Your task to perform on an android device: turn on priority inbox in the gmail app Image 0: 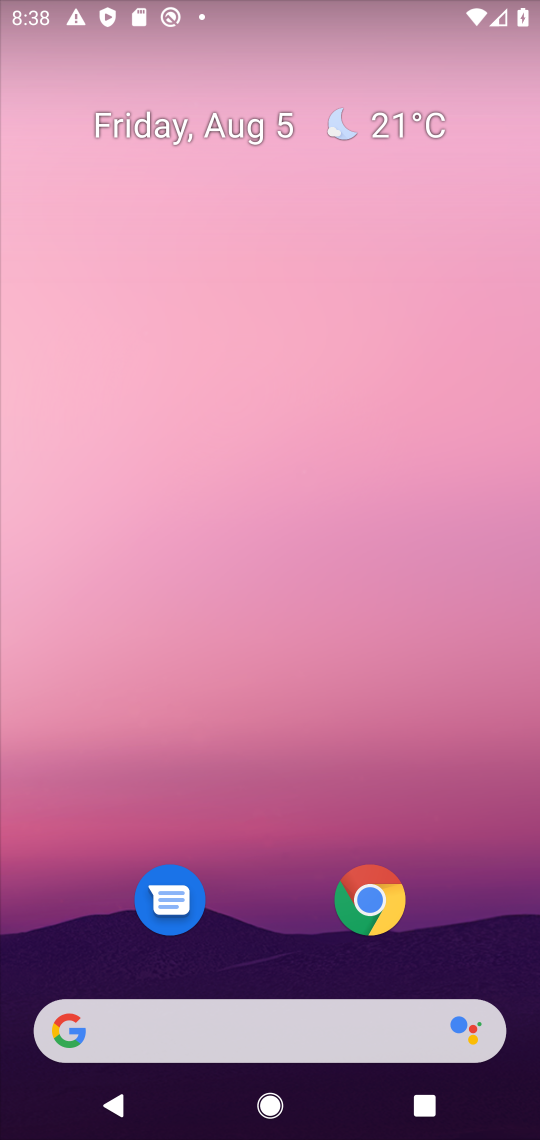
Step 0: drag from (244, 765) to (189, 10)
Your task to perform on an android device: turn on priority inbox in the gmail app Image 1: 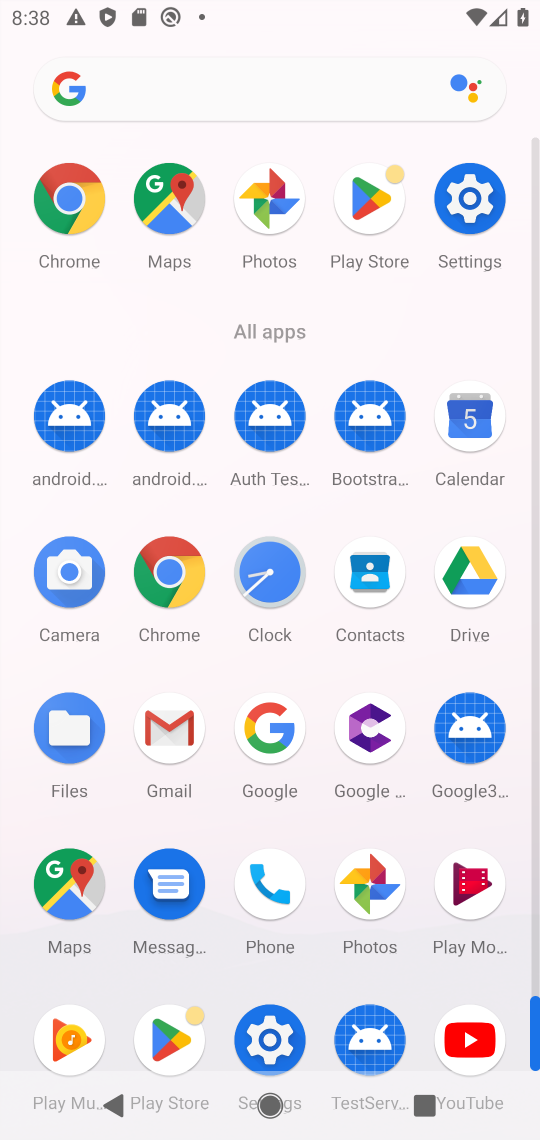
Step 1: click (180, 763)
Your task to perform on an android device: turn on priority inbox in the gmail app Image 2: 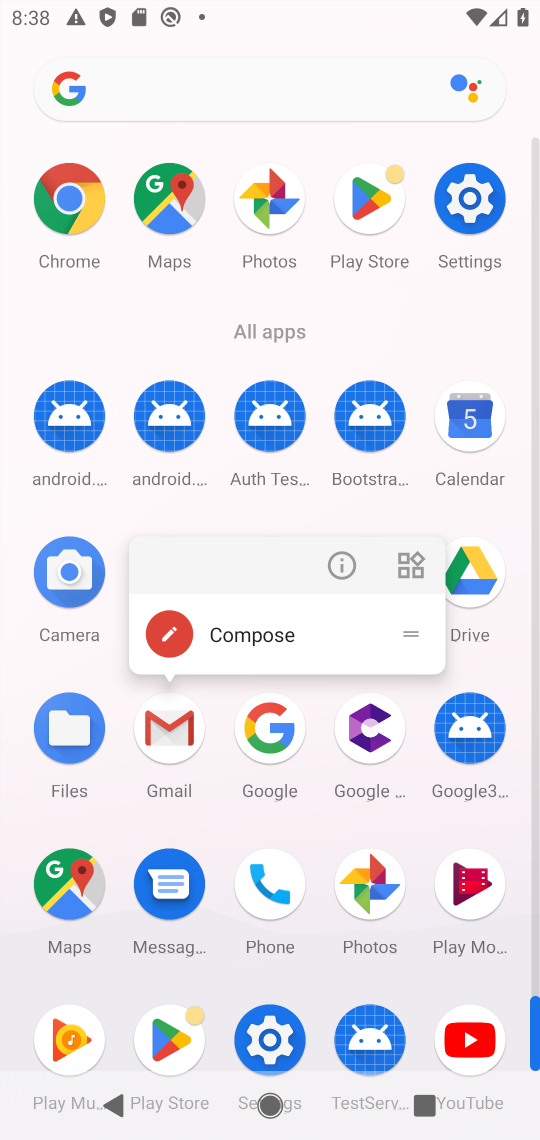
Step 2: click (153, 758)
Your task to perform on an android device: turn on priority inbox in the gmail app Image 3: 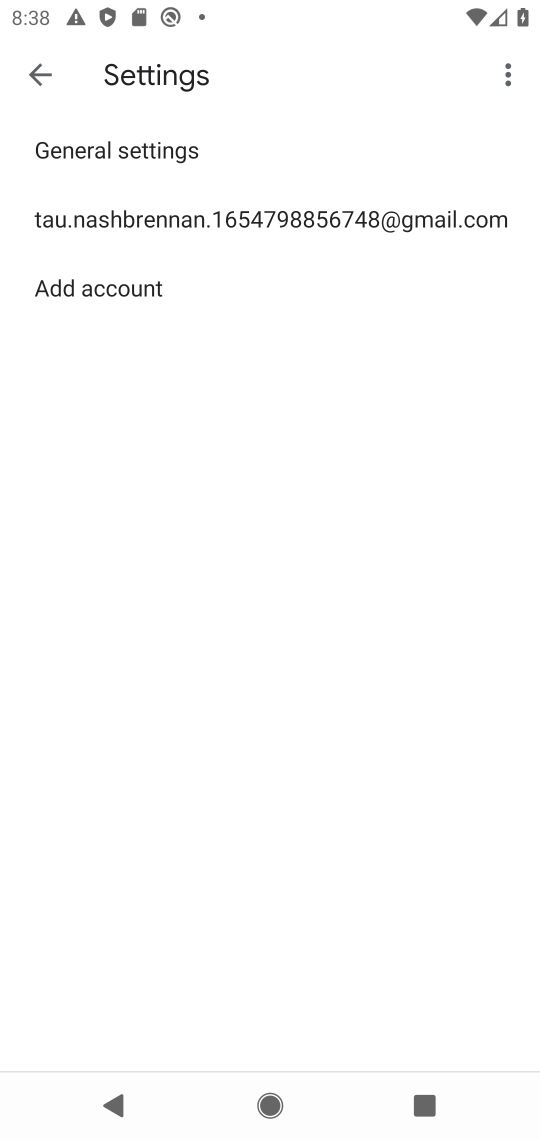
Step 3: click (471, 226)
Your task to perform on an android device: turn on priority inbox in the gmail app Image 4: 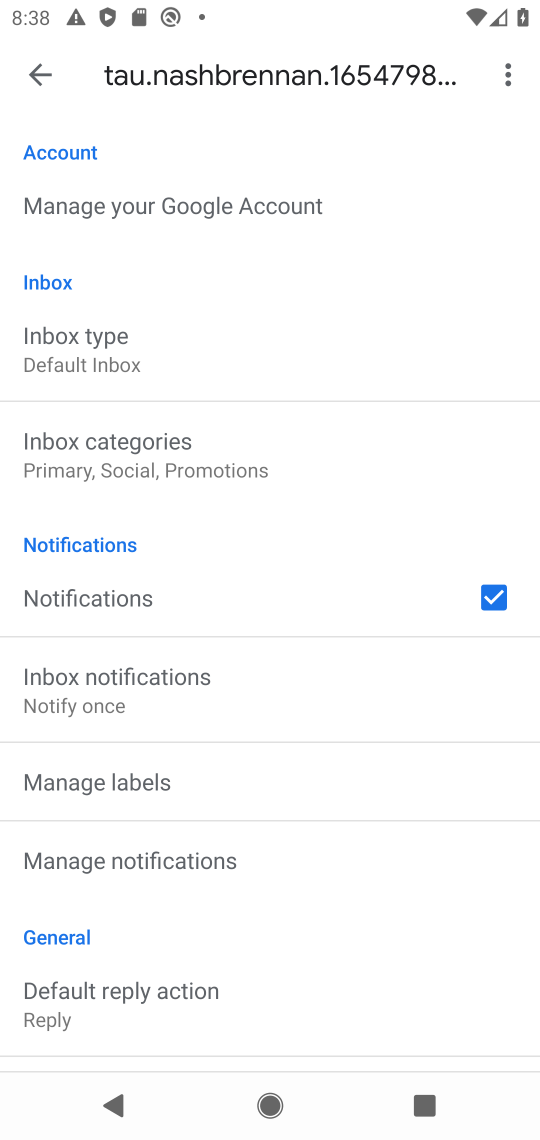
Step 4: click (49, 334)
Your task to perform on an android device: turn on priority inbox in the gmail app Image 5: 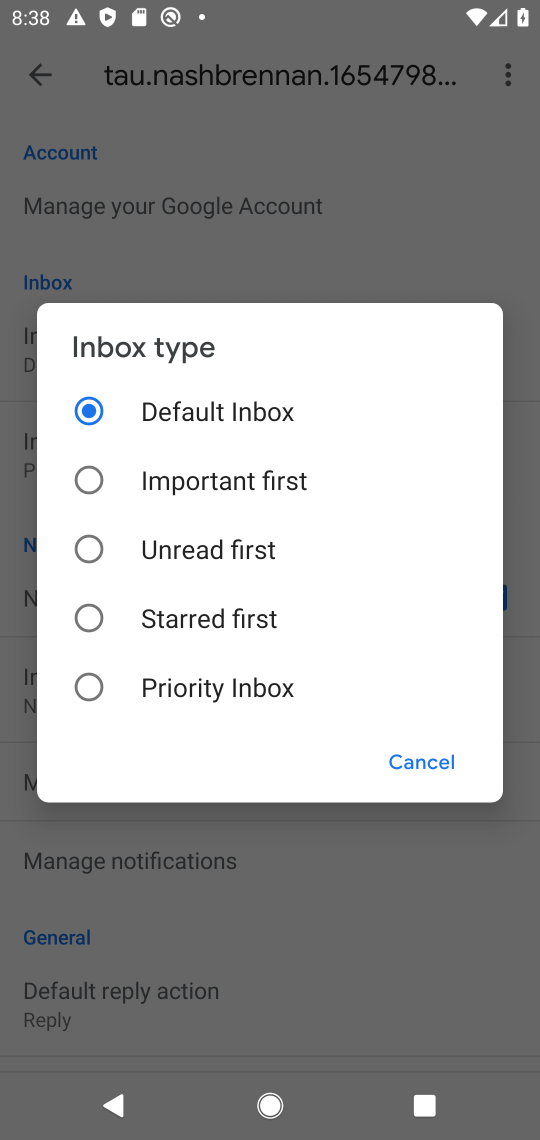
Step 5: click (83, 681)
Your task to perform on an android device: turn on priority inbox in the gmail app Image 6: 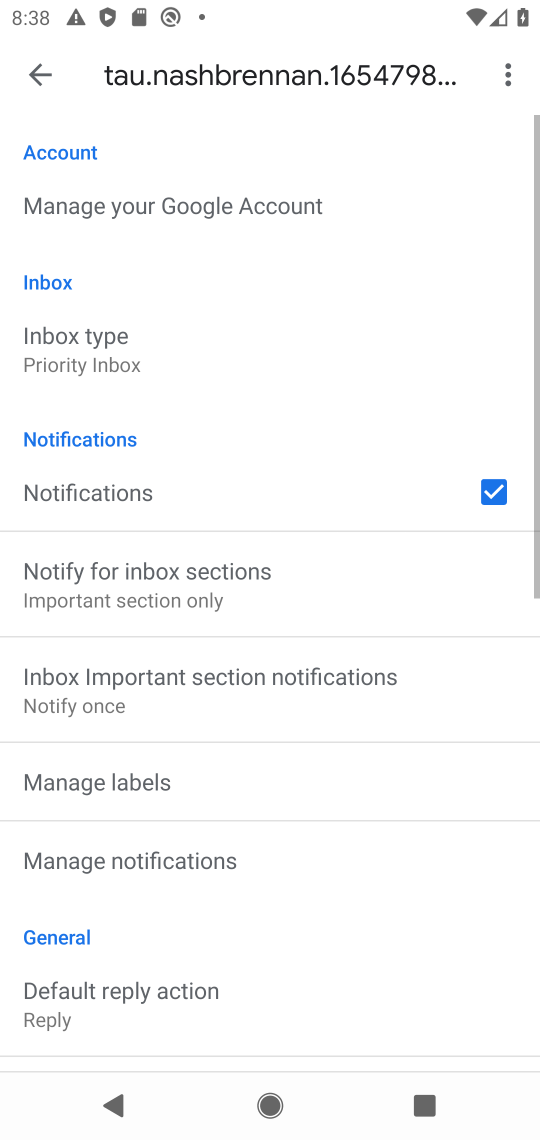
Step 6: task complete